Your task to perform on an android device: turn on javascript in the chrome app Image 0: 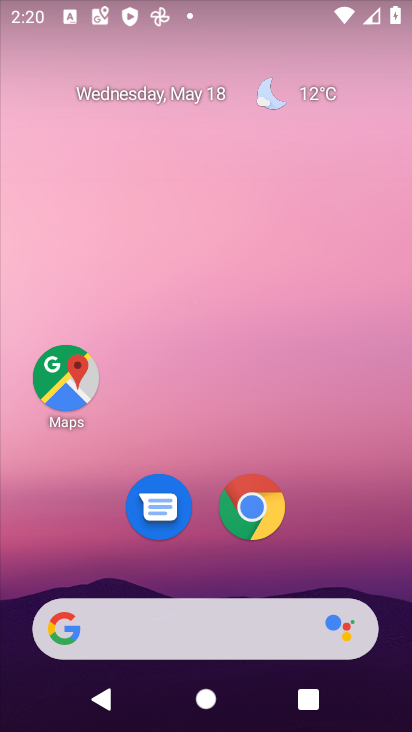
Step 0: click (253, 509)
Your task to perform on an android device: turn on javascript in the chrome app Image 1: 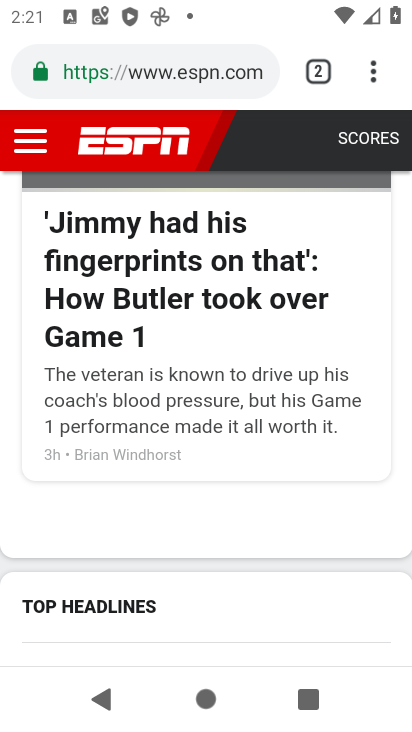
Step 1: click (374, 80)
Your task to perform on an android device: turn on javascript in the chrome app Image 2: 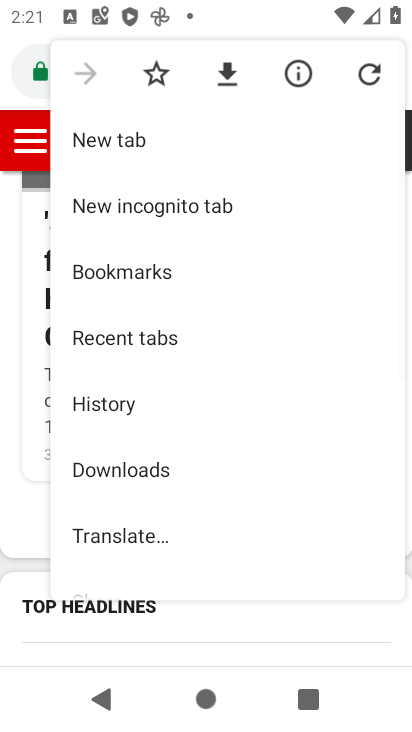
Step 2: drag from (228, 521) to (273, 203)
Your task to perform on an android device: turn on javascript in the chrome app Image 3: 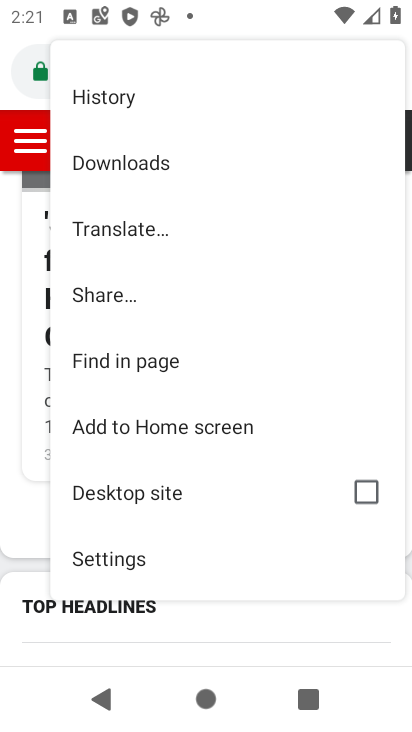
Step 3: drag from (199, 544) to (268, 182)
Your task to perform on an android device: turn on javascript in the chrome app Image 4: 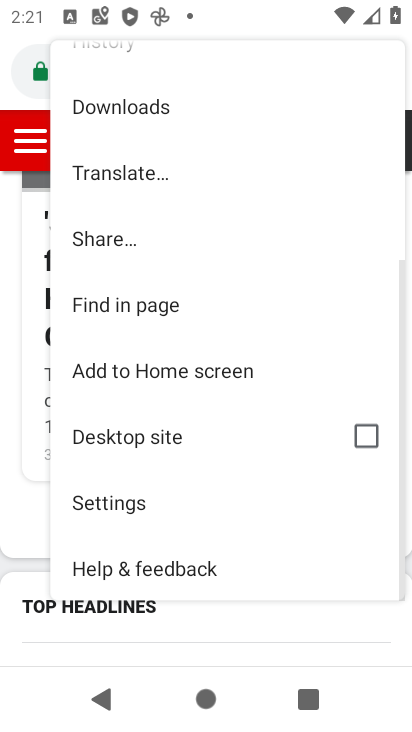
Step 4: click (112, 510)
Your task to perform on an android device: turn on javascript in the chrome app Image 5: 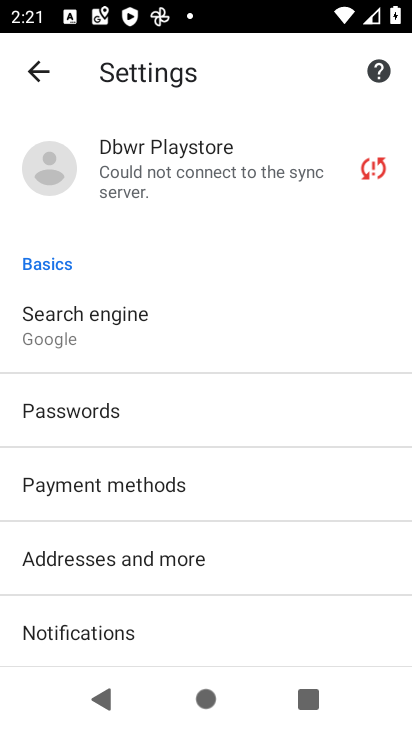
Step 5: drag from (257, 604) to (248, 227)
Your task to perform on an android device: turn on javascript in the chrome app Image 6: 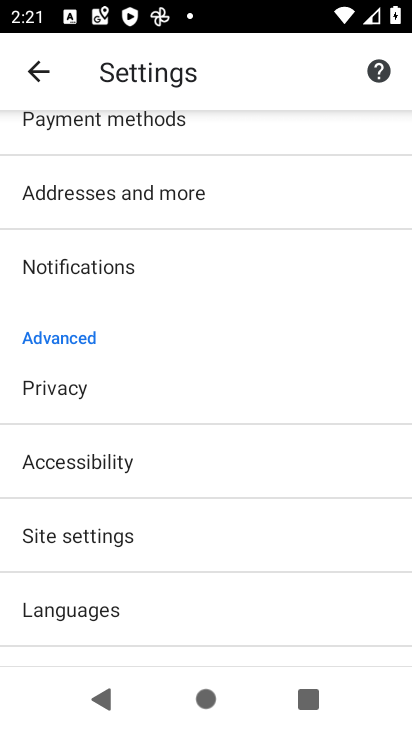
Step 6: drag from (229, 596) to (212, 236)
Your task to perform on an android device: turn on javascript in the chrome app Image 7: 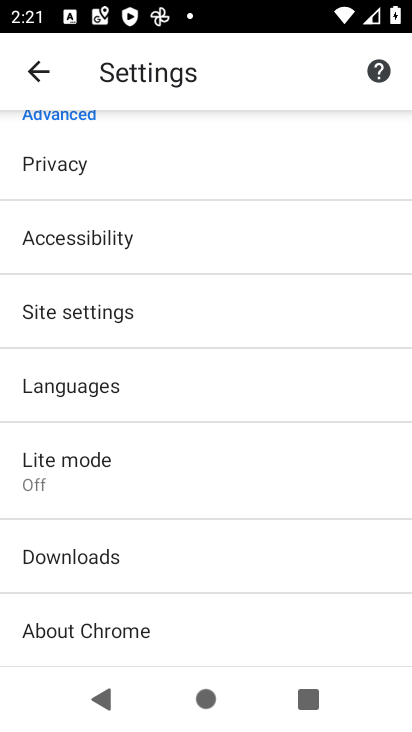
Step 7: click (87, 307)
Your task to perform on an android device: turn on javascript in the chrome app Image 8: 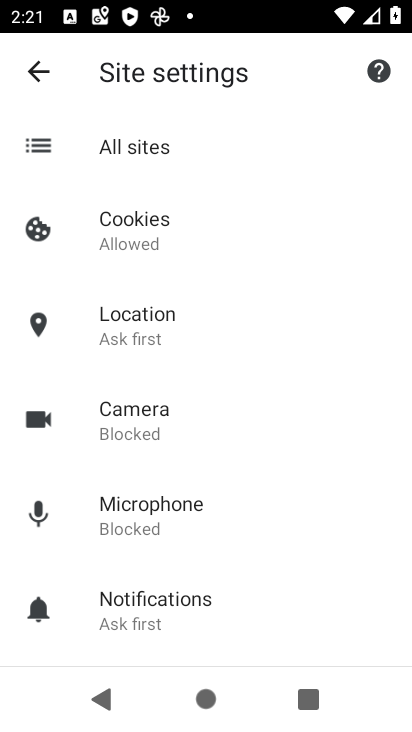
Step 8: drag from (242, 600) to (244, 110)
Your task to perform on an android device: turn on javascript in the chrome app Image 9: 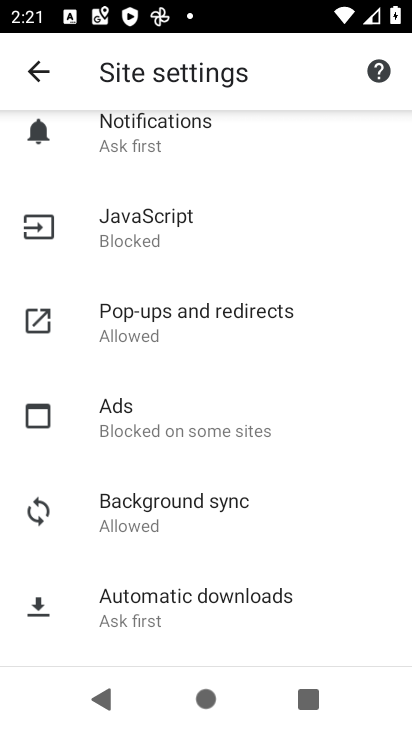
Step 9: click (138, 229)
Your task to perform on an android device: turn on javascript in the chrome app Image 10: 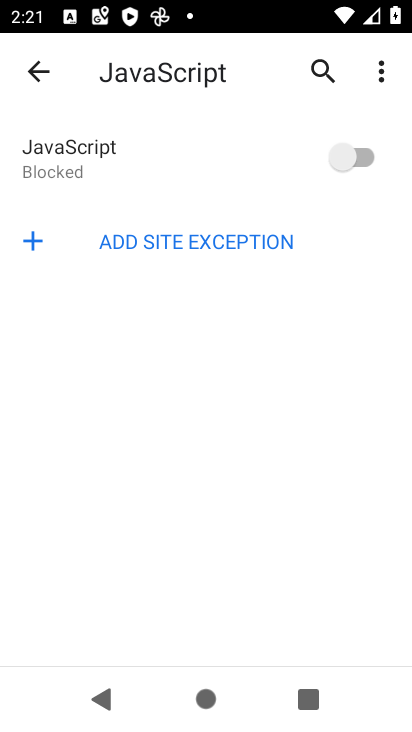
Step 10: click (357, 147)
Your task to perform on an android device: turn on javascript in the chrome app Image 11: 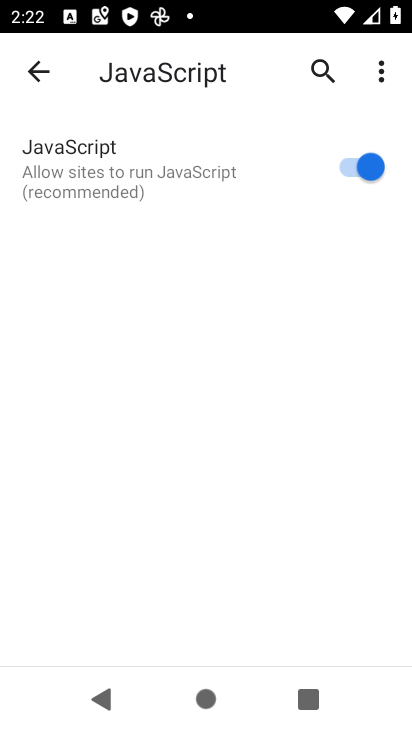
Step 11: task complete